Your task to perform on an android device: Go to Google maps Image 0: 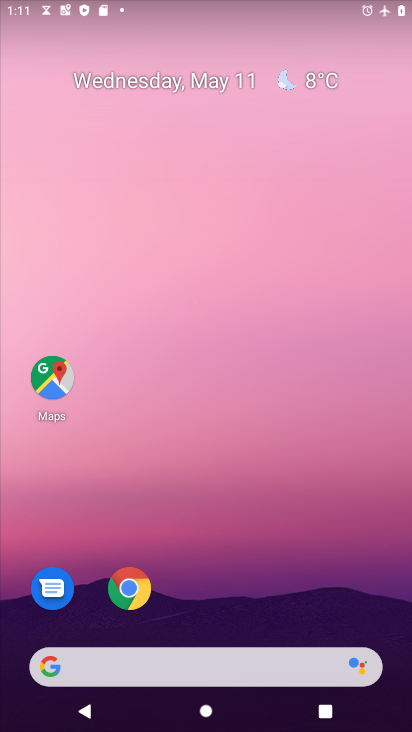
Step 0: click (49, 377)
Your task to perform on an android device: Go to Google maps Image 1: 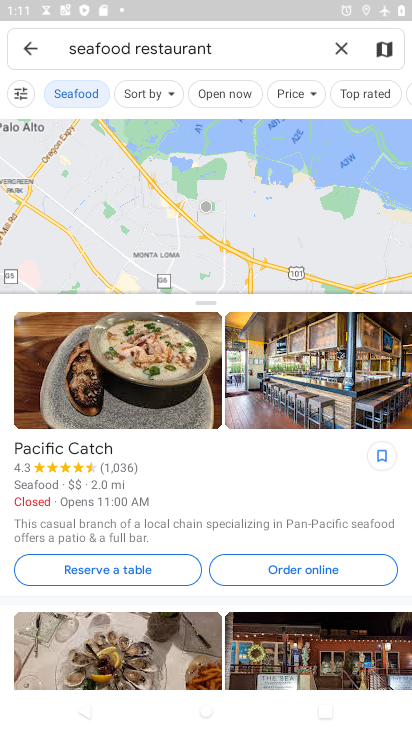
Step 1: task complete